Your task to perform on an android device: open app "WhatsApp Messenger" (install if not already installed) and go to login screen Image 0: 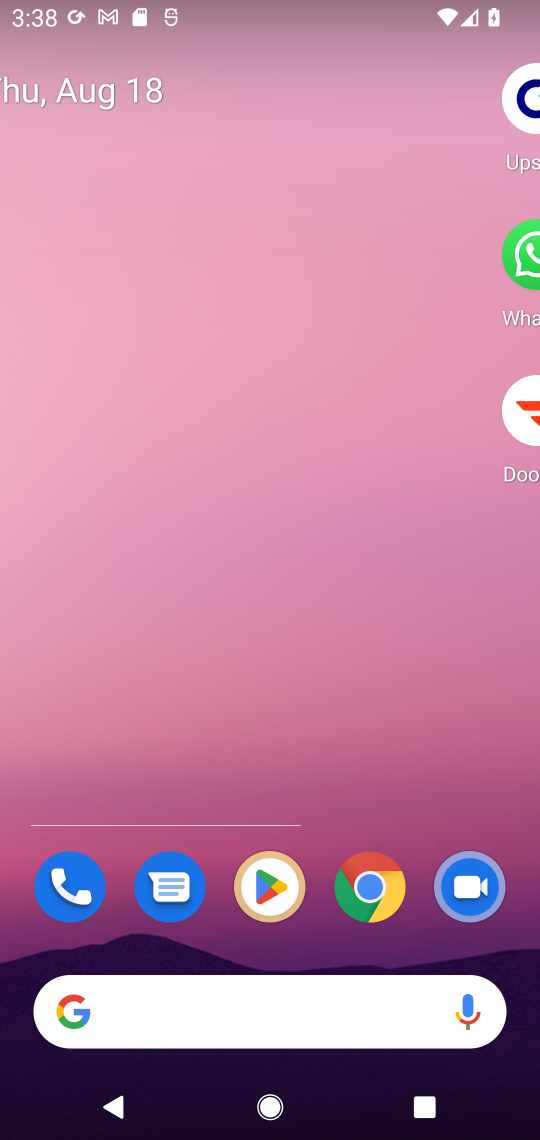
Step 0: press home button
Your task to perform on an android device: open app "WhatsApp Messenger" (install if not already installed) and go to login screen Image 1: 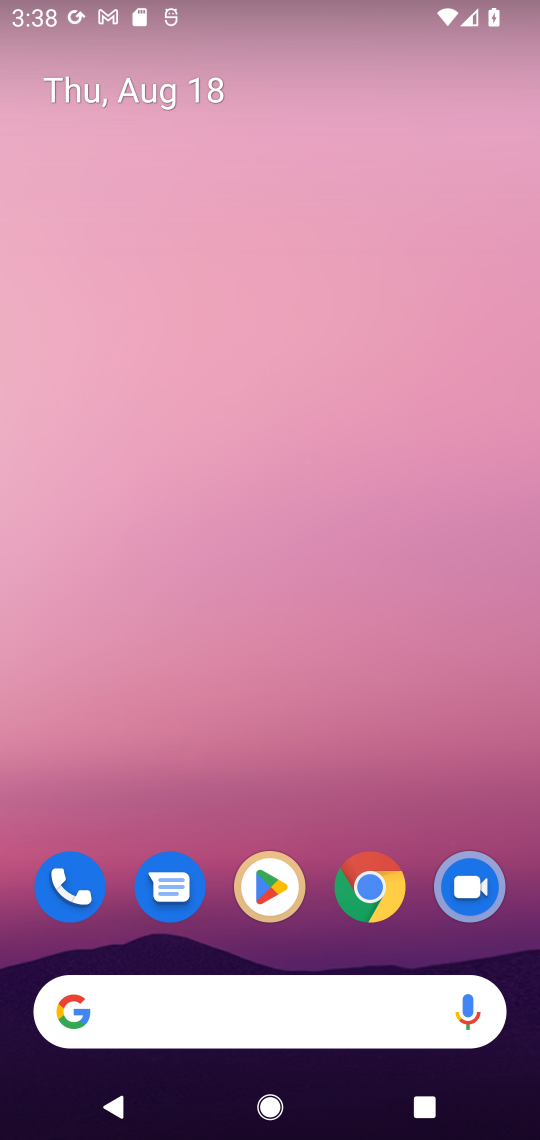
Step 1: click (264, 887)
Your task to perform on an android device: open app "WhatsApp Messenger" (install if not already installed) and go to login screen Image 2: 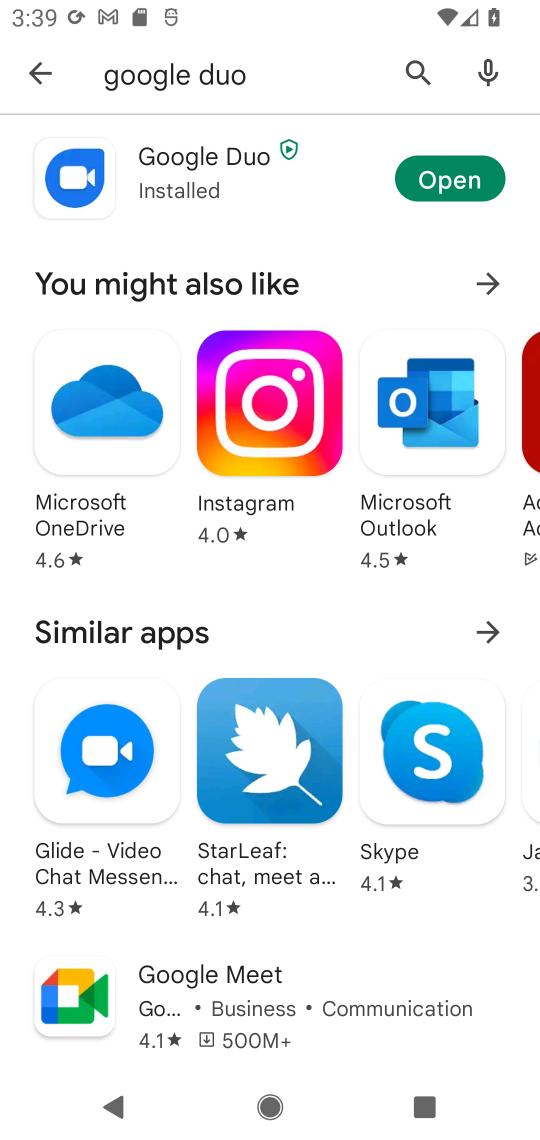
Step 2: click (420, 79)
Your task to perform on an android device: open app "WhatsApp Messenger" (install if not already installed) and go to login screen Image 3: 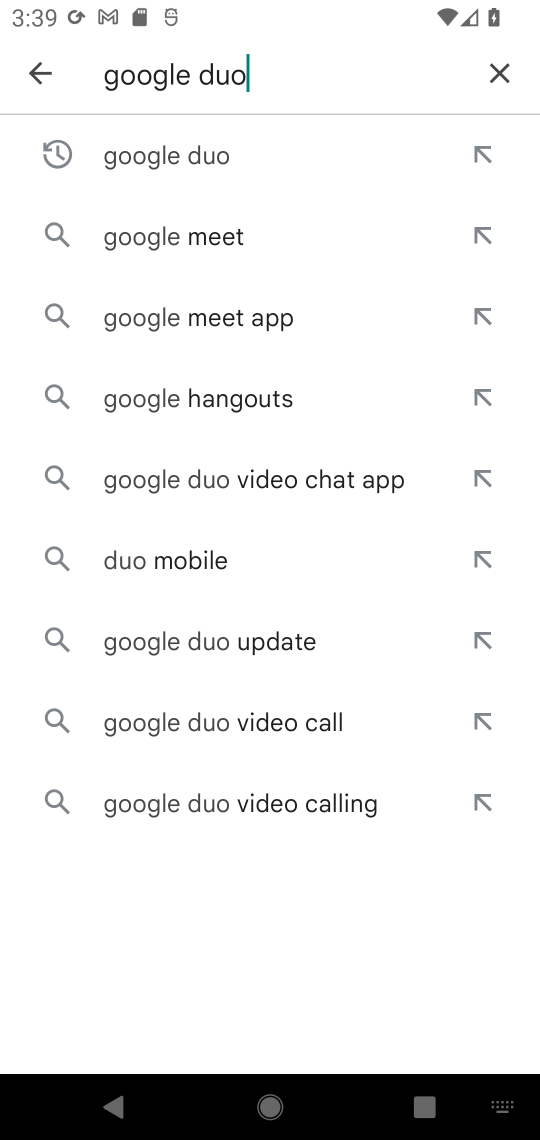
Step 3: click (513, 63)
Your task to perform on an android device: open app "WhatsApp Messenger" (install if not already installed) and go to login screen Image 4: 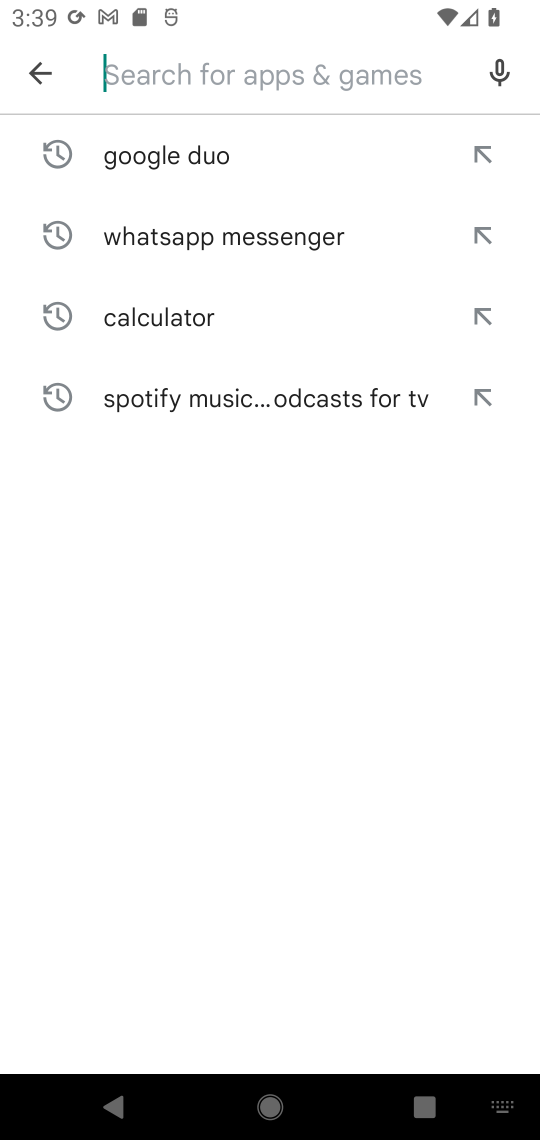
Step 4: type "WhatsApp Messenger"
Your task to perform on an android device: open app "WhatsApp Messenger" (install if not already installed) and go to login screen Image 5: 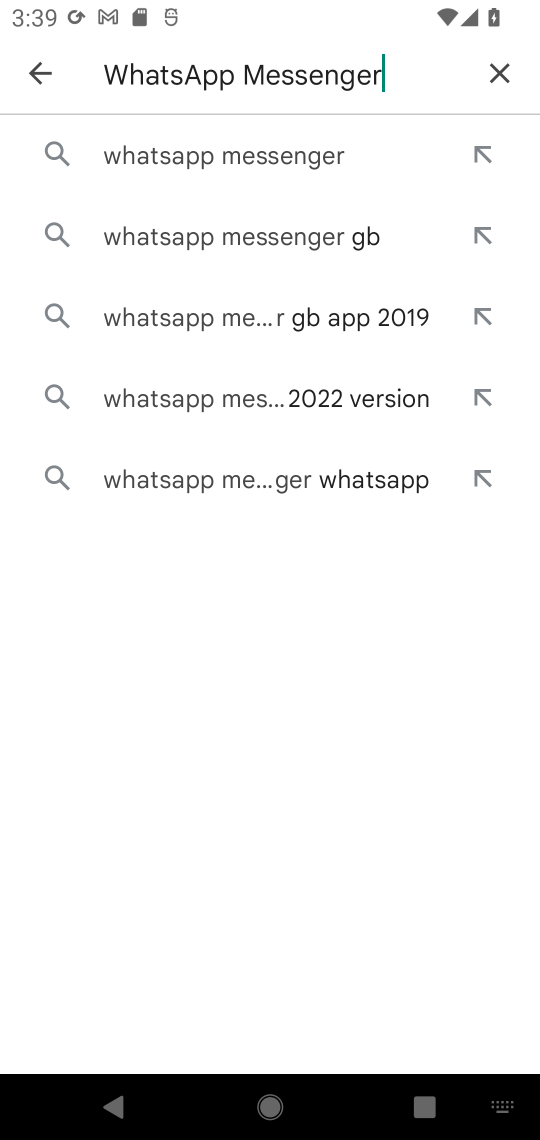
Step 5: click (219, 161)
Your task to perform on an android device: open app "WhatsApp Messenger" (install if not already installed) and go to login screen Image 6: 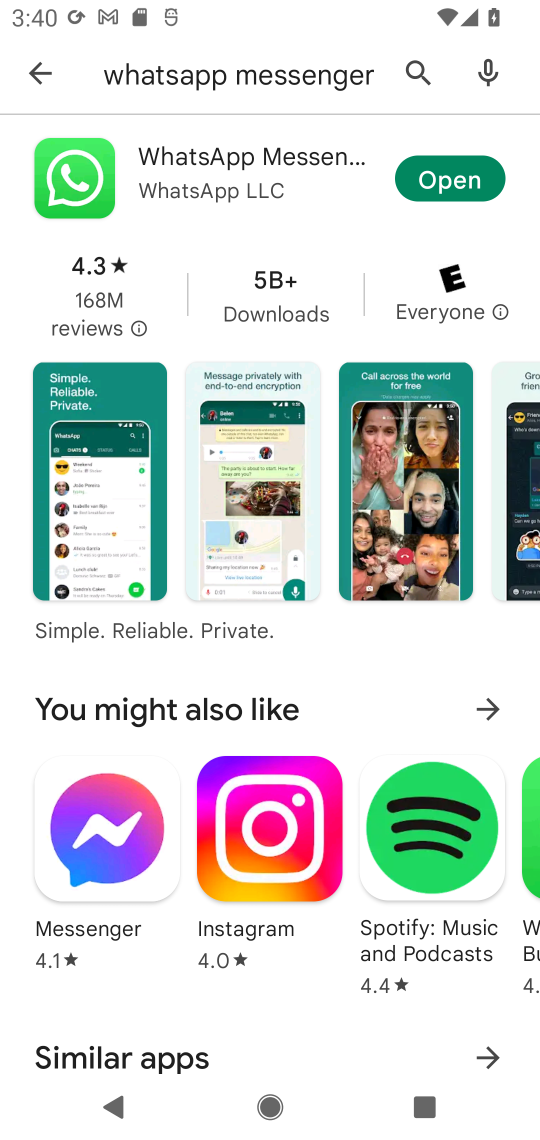
Step 6: click (431, 180)
Your task to perform on an android device: open app "WhatsApp Messenger" (install if not already installed) and go to login screen Image 7: 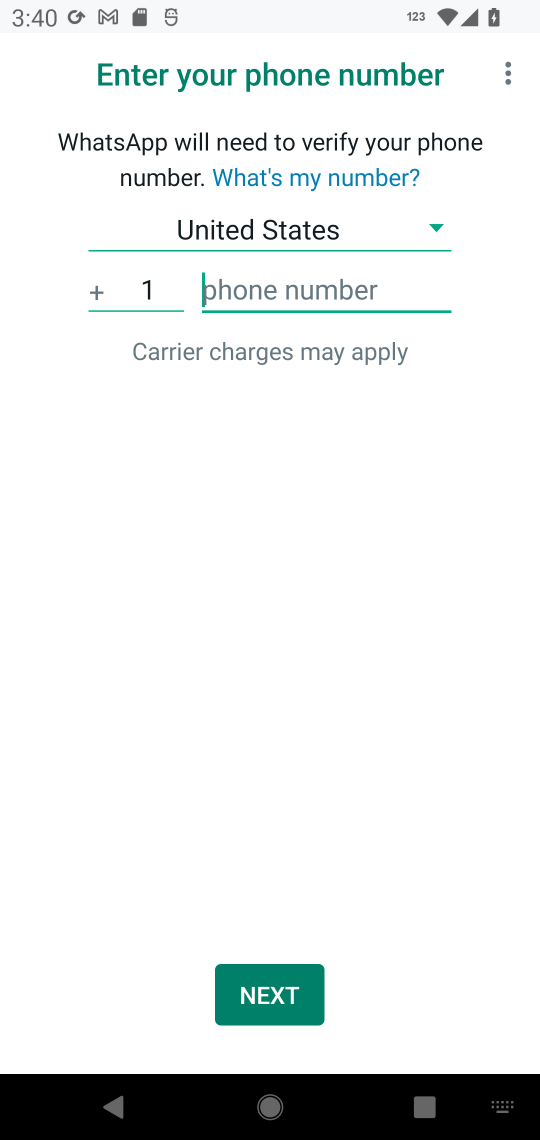
Step 7: task complete